Your task to perform on an android device: add a label to a message in the gmail app Image 0: 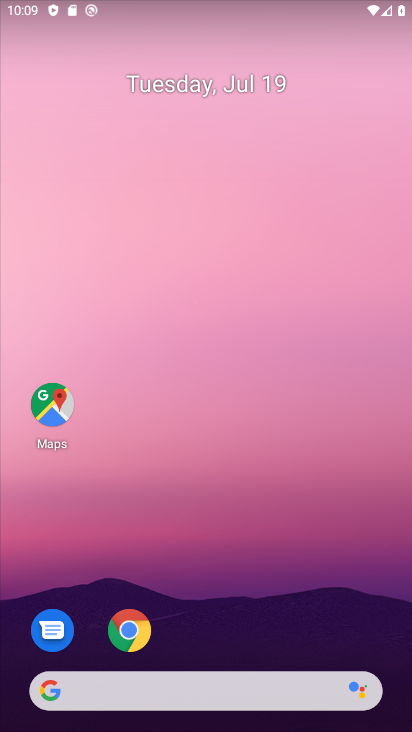
Step 0: press home button
Your task to perform on an android device: add a label to a message in the gmail app Image 1: 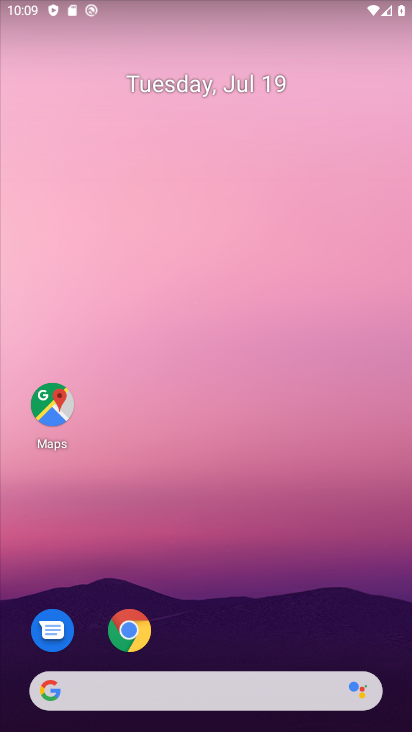
Step 1: drag from (242, 642) to (130, 42)
Your task to perform on an android device: add a label to a message in the gmail app Image 2: 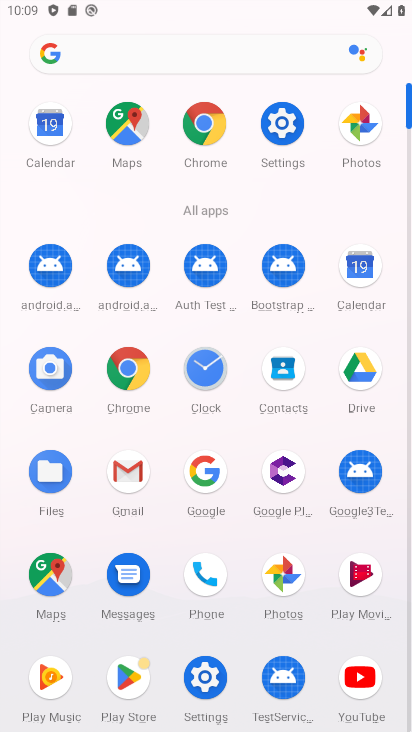
Step 2: click (126, 463)
Your task to perform on an android device: add a label to a message in the gmail app Image 3: 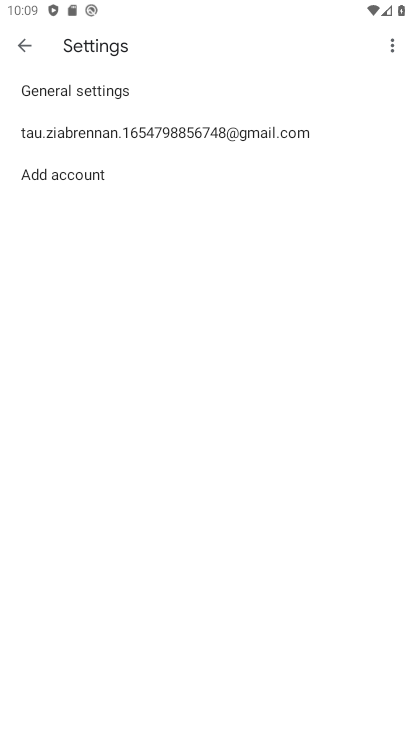
Step 3: click (23, 54)
Your task to perform on an android device: add a label to a message in the gmail app Image 4: 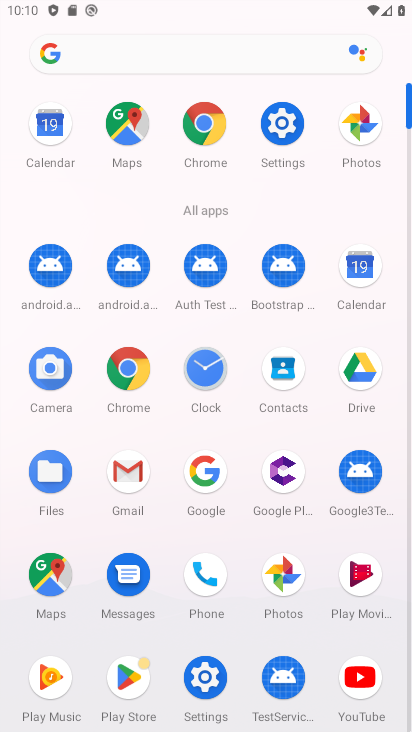
Step 4: click (134, 463)
Your task to perform on an android device: add a label to a message in the gmail app Image 5: 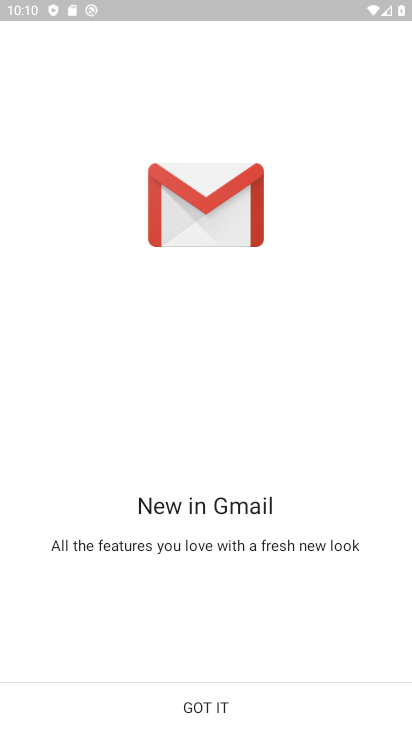
Step 5: click (222, 696)
Your task to perform on an android device: add a label to a message in the gmail app Image 6: 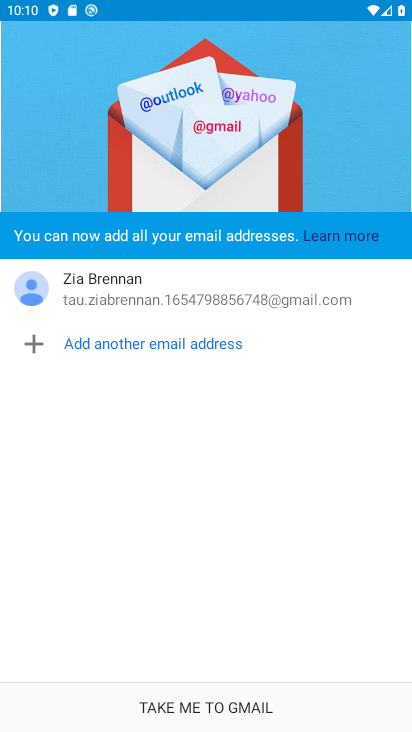
Step 6: click (215, 697)
Your task to perform on an android device: add a label to a message in the gmail app Image 7: 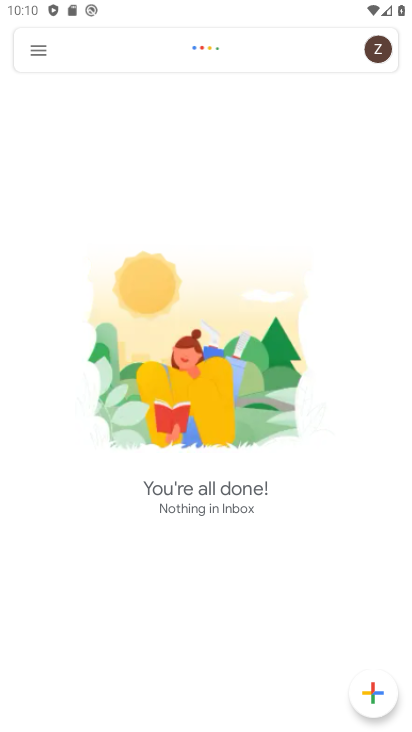
Step 7: click (43, 48)
Your task to perform on an android device: add a label to a message in the gmail app Image 8: 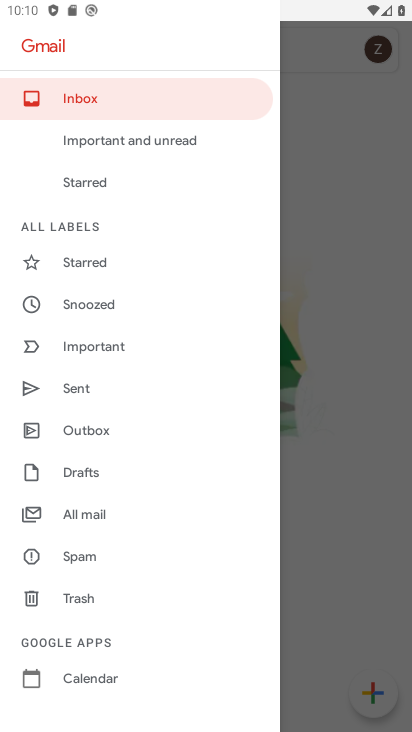
Step 8: click (78, 510)
Your task to perform on an android device: add a label to a message in the gmail app Image 9: 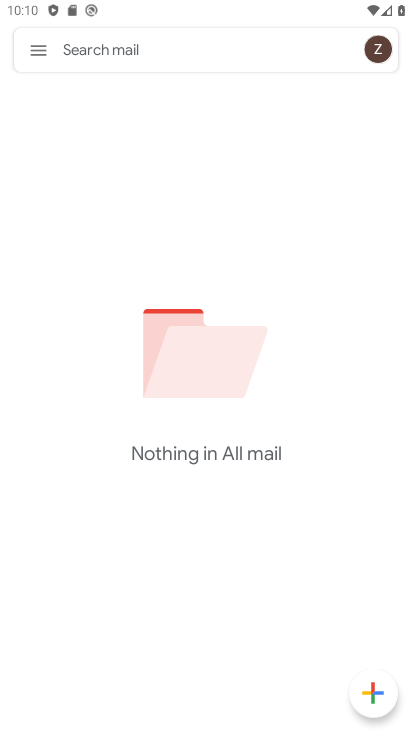
Step 9: task complete